Your task to perform on an android device: toggle priority inbox in the gmail app Image 0: 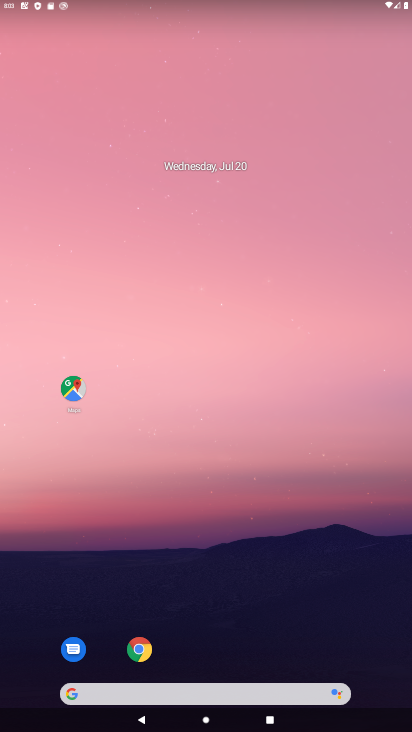
Step 0: drag from (291, 672) to (233, 120)
Your task to perform on an android device: toggle priority inbox in the gmail app Image 1: 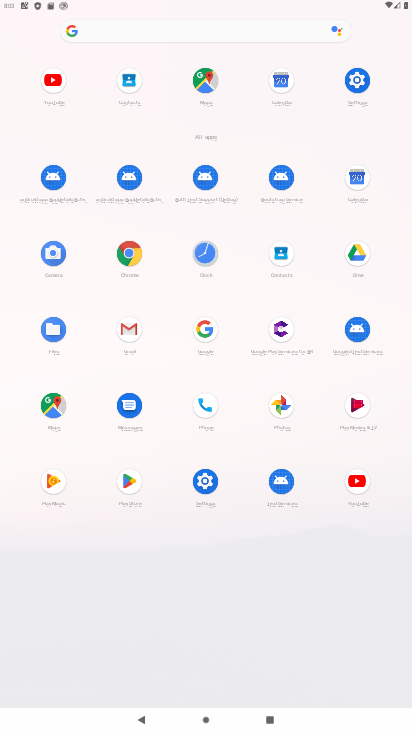
Step 1: click (124, 325)
Your task to perform on an android device: toggle priority inbox in the gmail app Image 2: 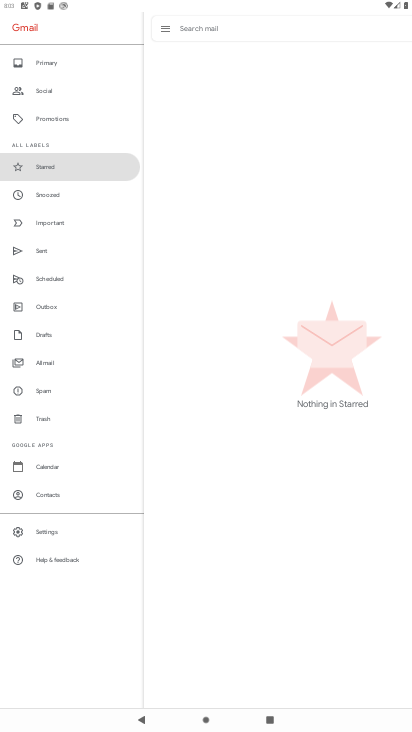
Step 2: click (50, 531)
Your task to perform on an android device: toggle priority inbox in the gmail app Image 3: 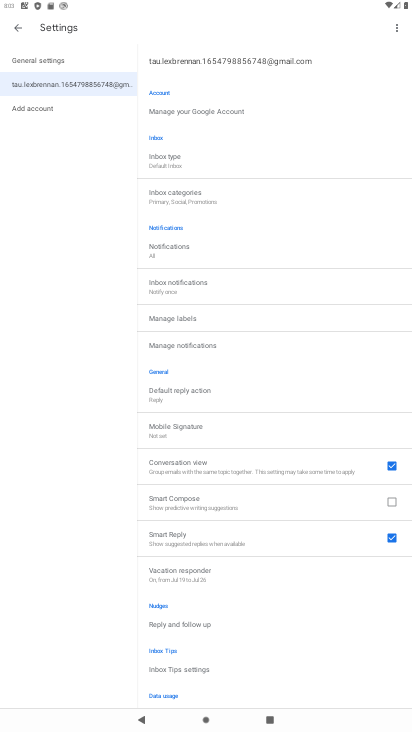
Step 3: click (199, 163)
Your task to perform on an android device: toggle priority inbox in the gmail app Image 4: 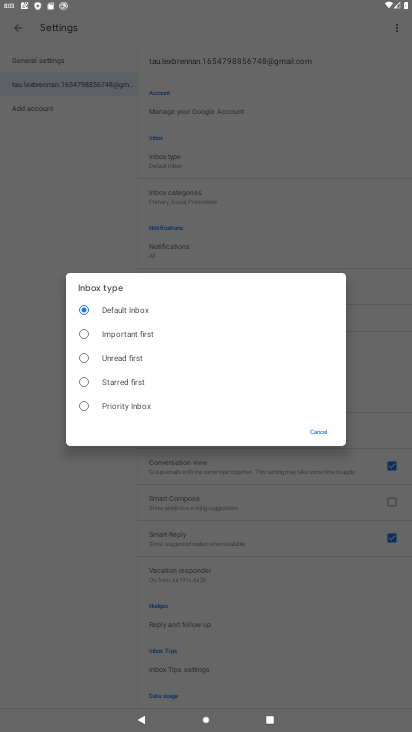
Step 4: click (122, 405)
Your task to perform on an android device: toggle priority inbox in the gmail app Image 5: 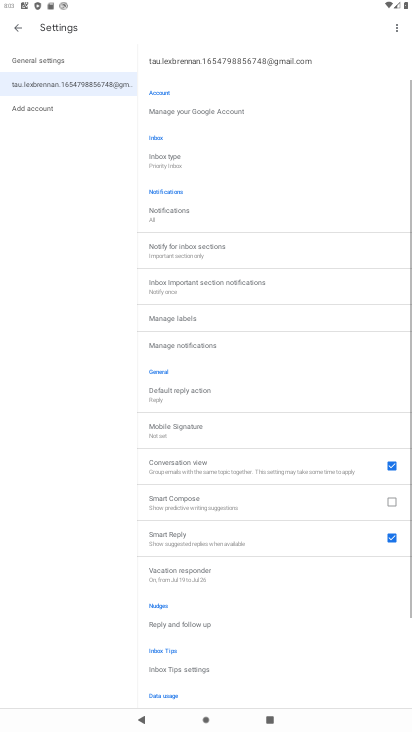
Step 5: task complete